Your task to perform on an android device: choose inbox layout in the gmail app Image 0: 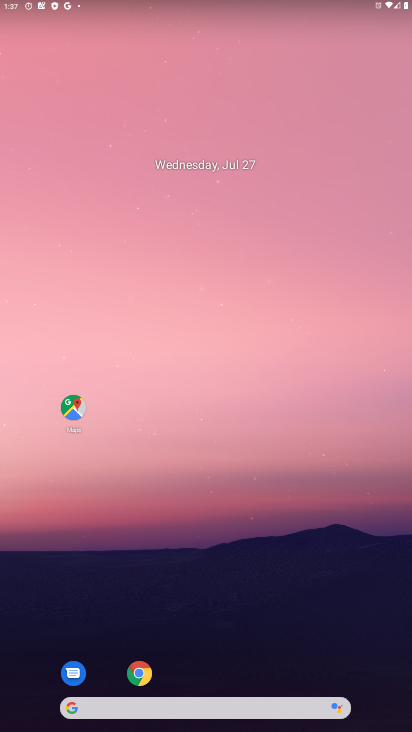
Step 0: drag from (240, 686) to (259, 175)
Your task to perform on an android device: choose inbox layout in the gmail app Image 1: 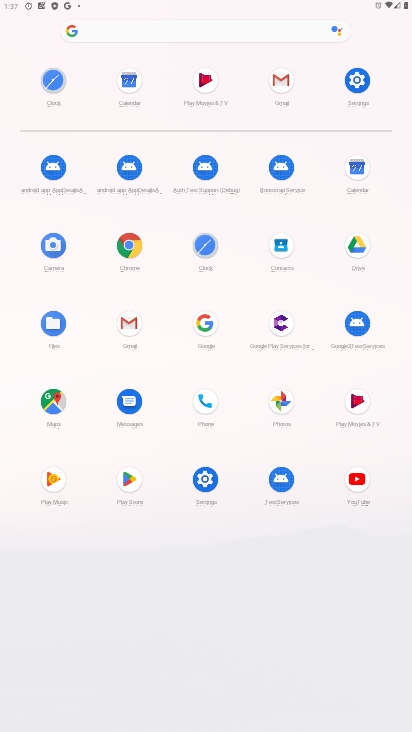
Step 1: click (278, 84)
Your task to perform on an android device: choose inbox layout in the gmail app Image 2: 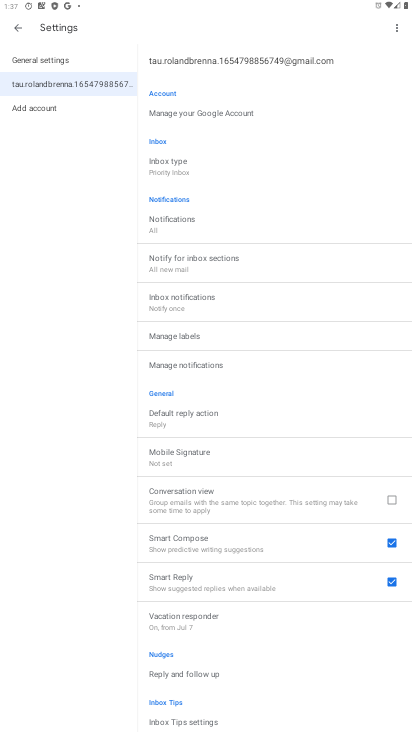
Step 2: click (177, 171)
Your task to perform on an android device: choose inbox layout in the gmail app Image 3: 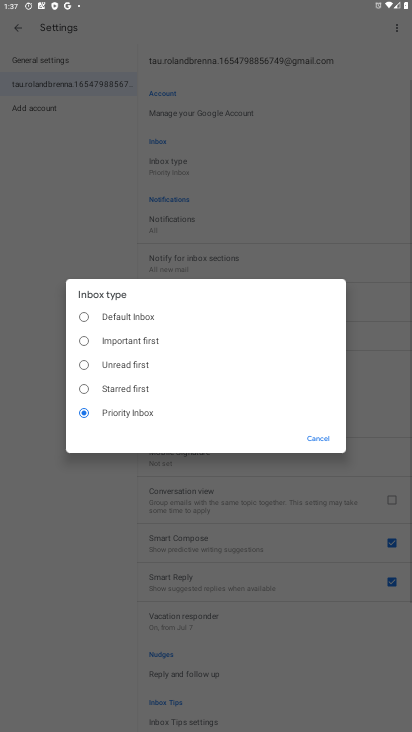
Step 3: click (112, 344)
Your task to perform on an android device: choose inbox layout in the gmail app Image 4: 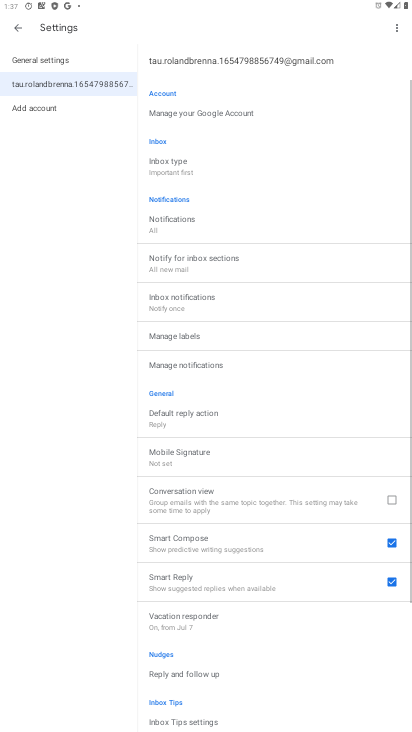
Step 4: task complete